Your task to perform on an android device: change the clock display to show seconds Image 0: 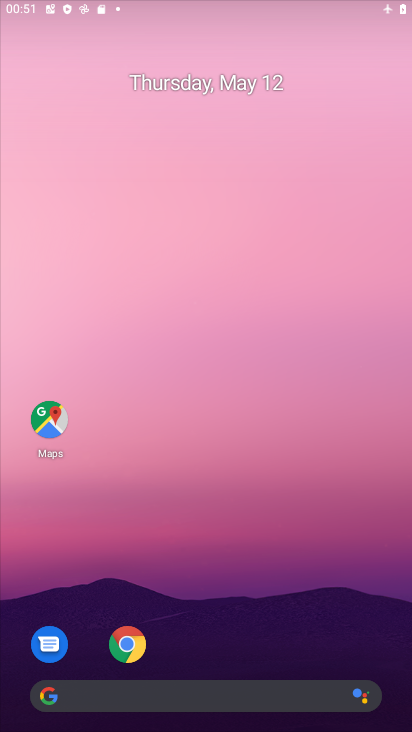
Step 0: drag from (266, 651) to (268, 255)
Your task to perform on an android device: change the clock display to show seconds Image 1: 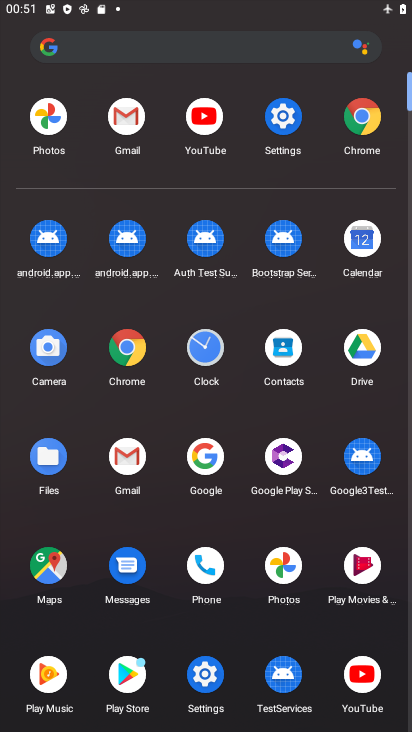
Step 1: click (203, 372)
Your task to perform on an android device: change the clock display to show seconds Image 2: 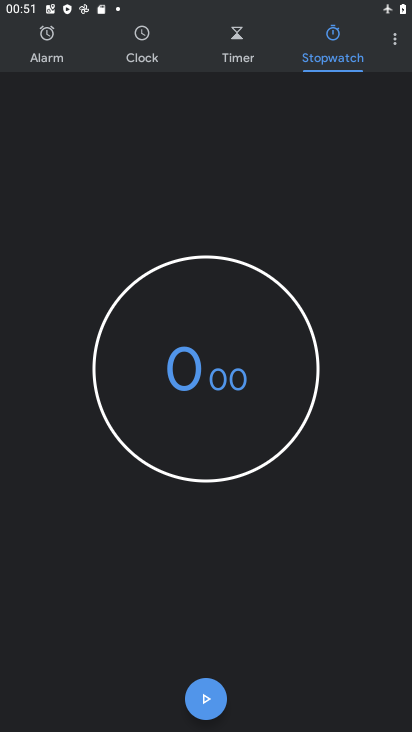
Step 2: click (387, 51)
Your task to perform on an android device: change the clock display to show seconds Image 3: 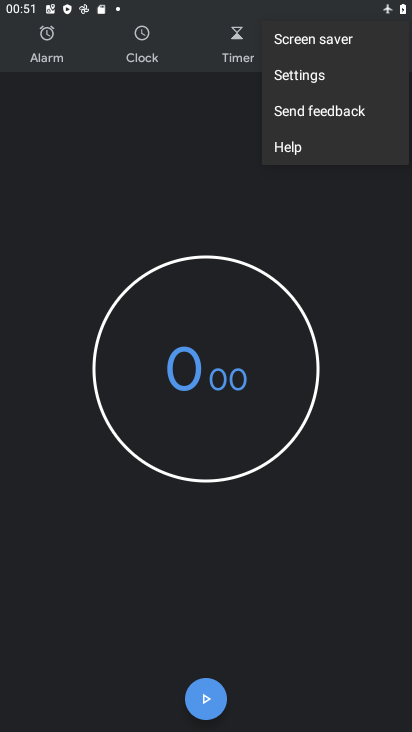
Step 3: click (353, 66)
Your task to perform on an android device: change the clock display to show seconds Image 4: 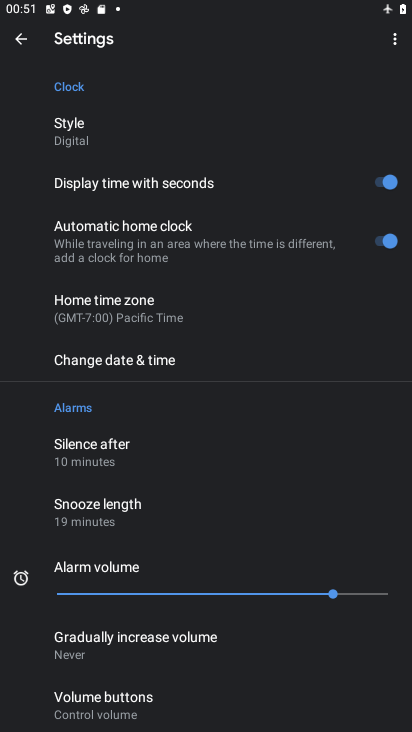
Step 4: task complete